Your task to perform on an android device: Open display settings Image 0: 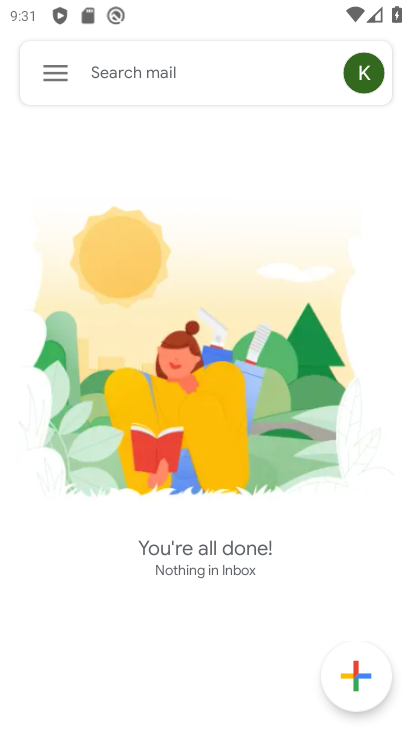
Step 0: press home button
Your task to perform on an android device: Open display settings Image 1: 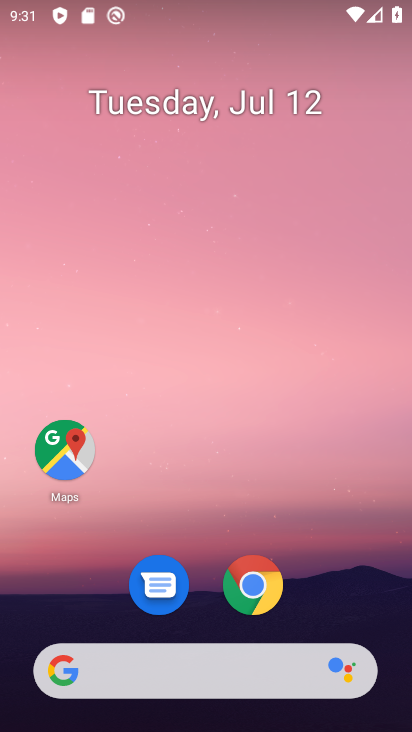
Step 1: drag from (218, 663) to (345, 85)
Your task to perform on an android device: Open display settings Image 2: 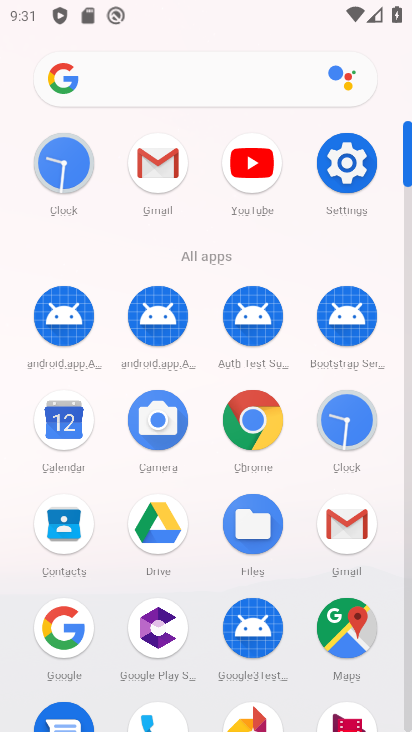
Step 2: click (346, 171)
Your task to perform on an android device: Open display settings Image 3: 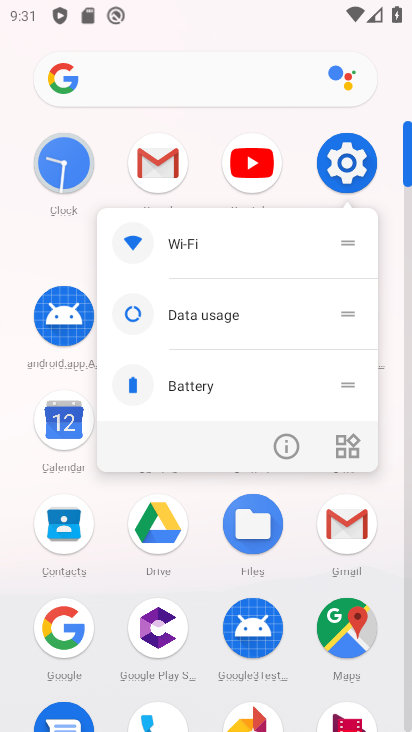
Step 3: click (339, 162)
Your task to perform on an android device: Open display settings Image 4: 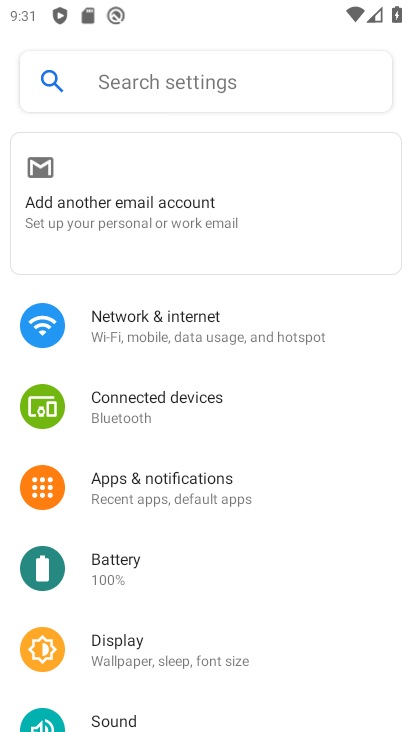
Step 4: click (171, 652)
Your task to perform on an android device: Open display settings Image 5: 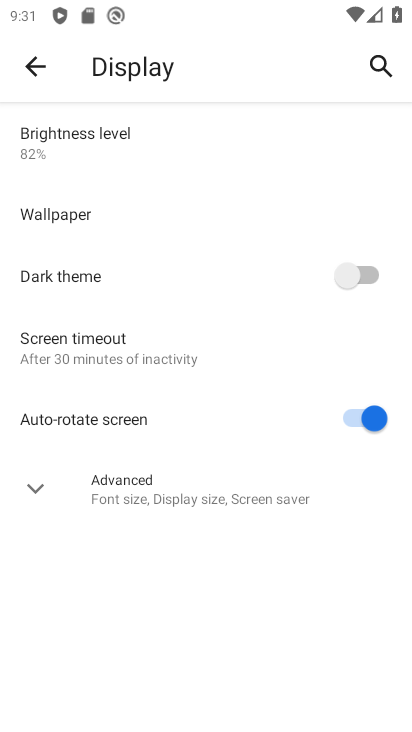
Step 5: task complete